Your task to perform on an android device: open a bookmark in the chrome app Image 0: 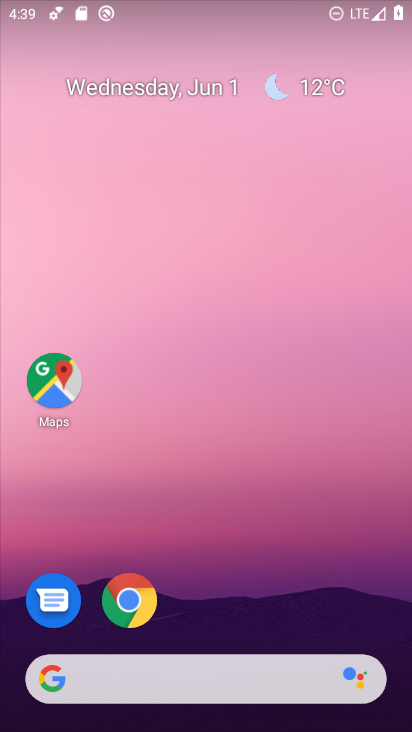
Step 0: click (134, 599)
Your task to perform on an android device: open a bookmark in the chrome app Image 1: 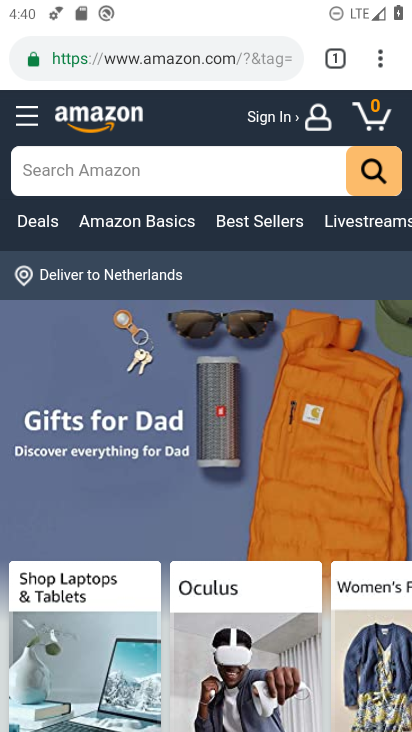
Step 1: click (379, 63)
Your task to perform on an android device: open a bookmark in the chrome app Image 2: 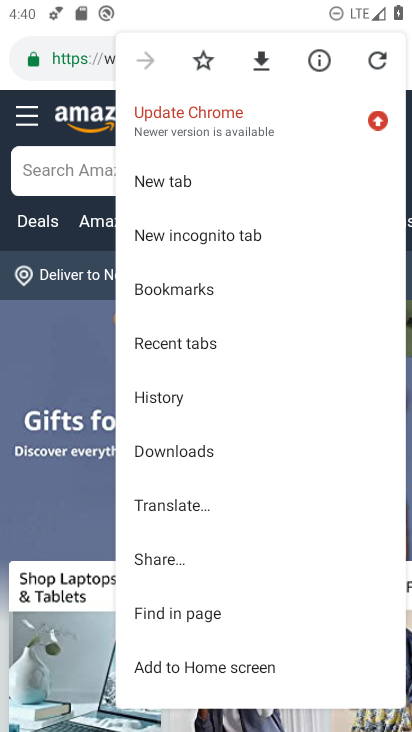
Step 2: click (174, 298)
Your task to perform on an android device: open a bookmark in the chrome app Image 3: 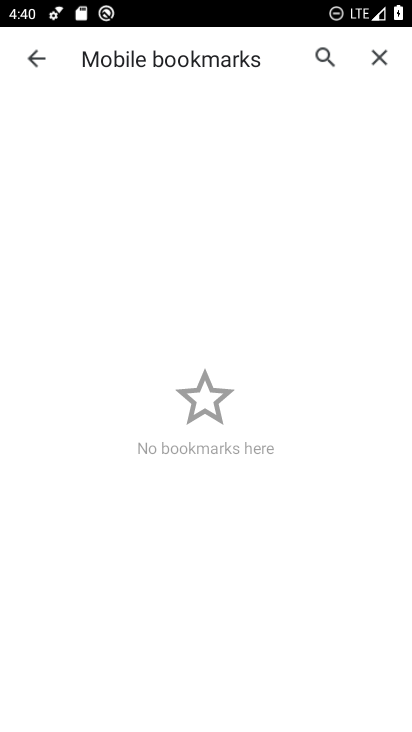
Step 3: task complete